Your task to perform on an android device: Go to eBay Image 0: 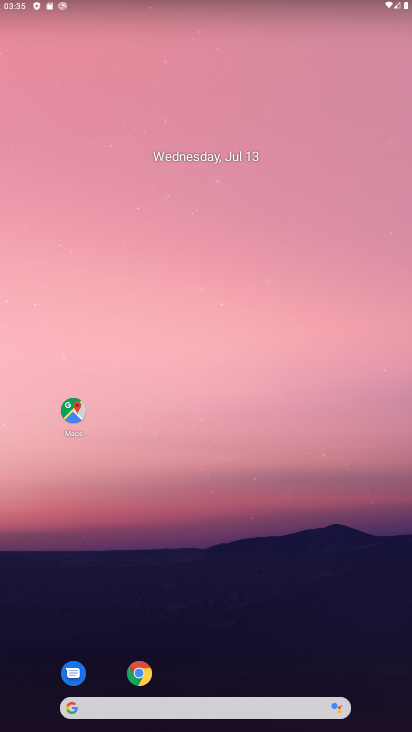
Step 0: drag from (217, 660) to (234, 106)
Your task to perform on an android device: Go to eBay Image 1: 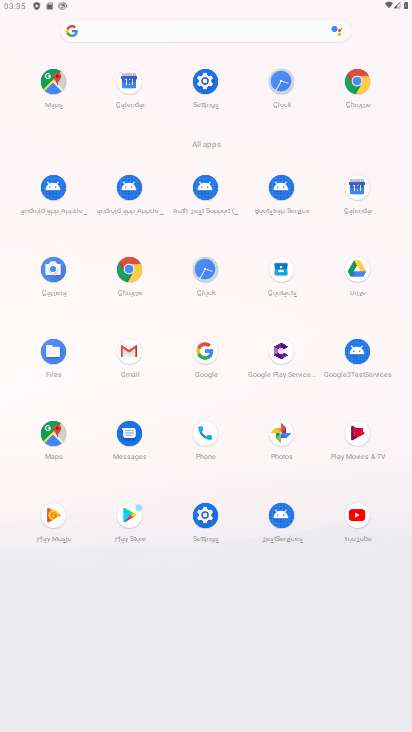
Step 1: click (133, 266)
Your task to perform on an android device: Go to eBay Image 2: 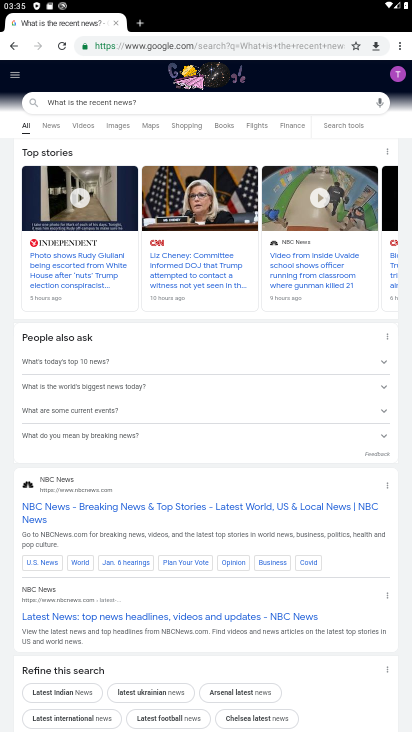
Step 2: click (242, 41)
Your task to perform on an android device: Go to eBay Image 3: 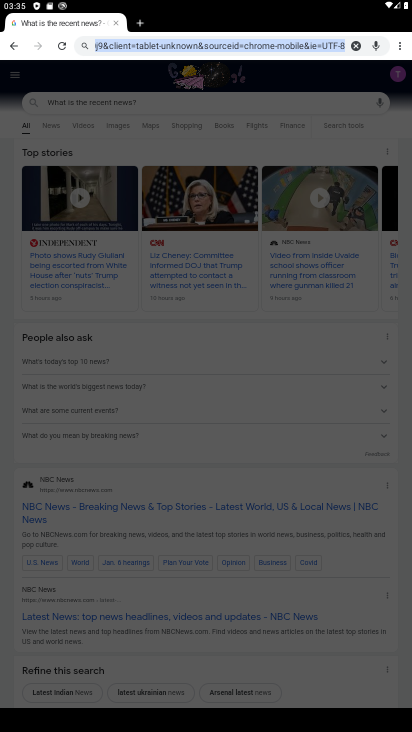
Step 3: click (356, 44)
Your task to perform on an android device: Go to eBay Image 4: 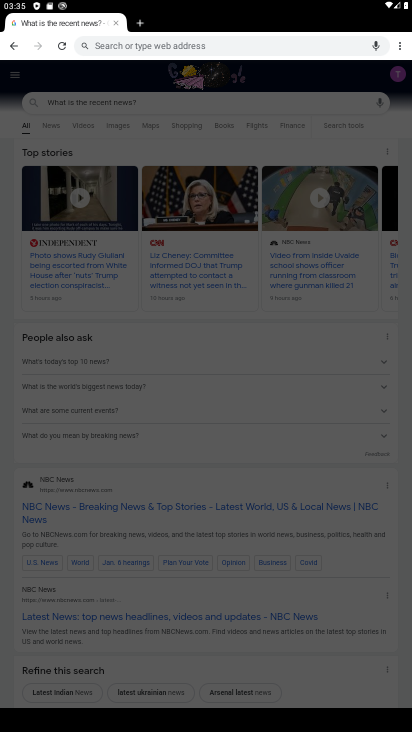
Step 4: type "eBay"
Your task to perform on an android device: Go to eBay Image 5: 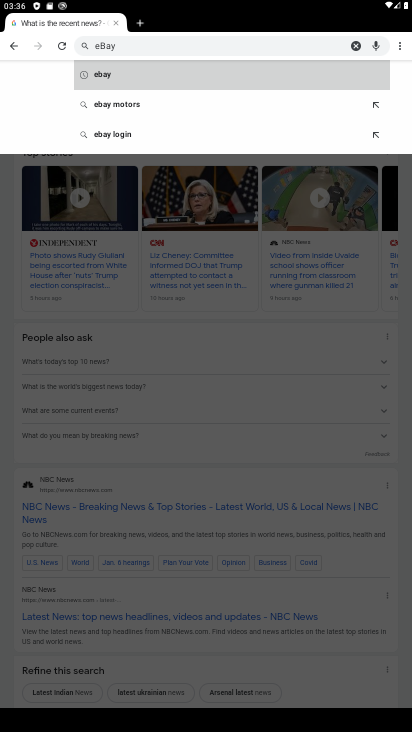
Step 5: click (105, 68)
Your task to perform on an android device: Go to eBay Image 6: 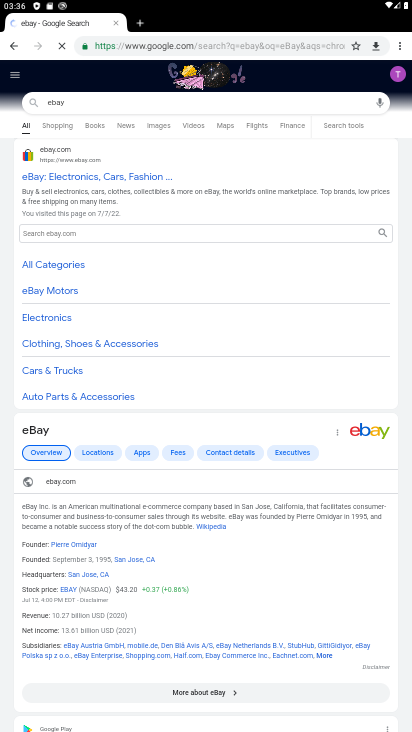
Step 6: task complete